Your task to perform on an android device: open chrome and create a bookmark for the current page Image 0: 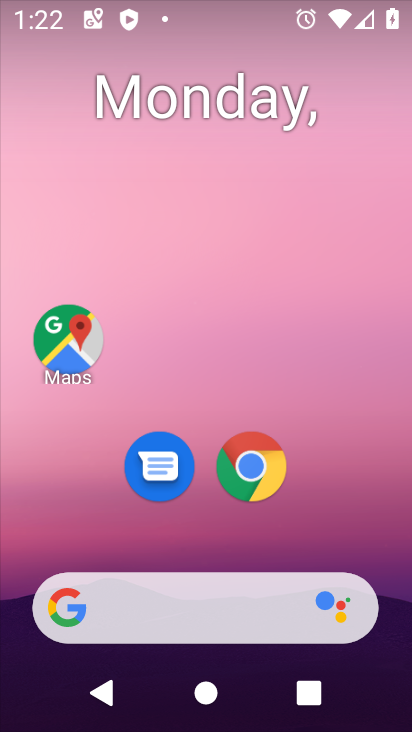
Step 0: drag from (391, 625) to (294, 144)
Your task to perform on an android device: open chrome and create a bookmark for the current page Image 1: 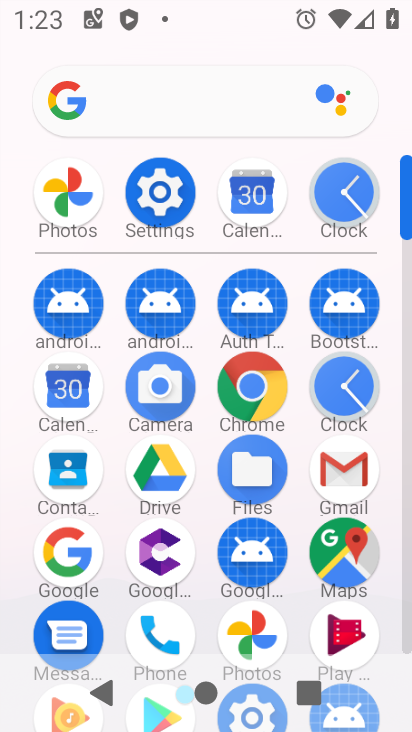
Step 1: click (239, 391)
Your task to perform on an android device: open chrome and create a bookmark for the current page Image 2: 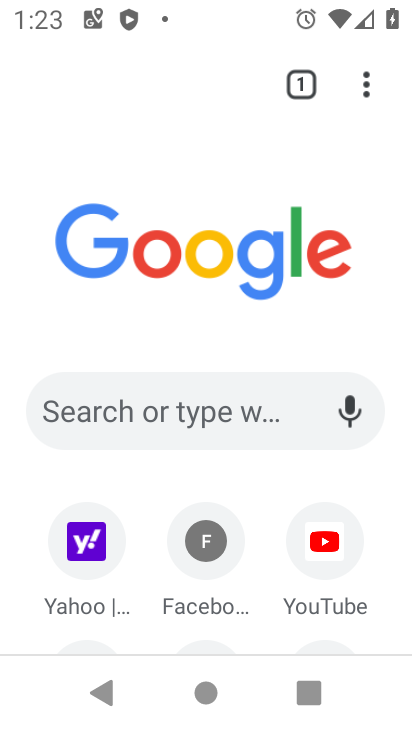
Step 2: click (368, 79)
Your task to perform on an android device: open chrome and create a bookmark for the current page Image 3: 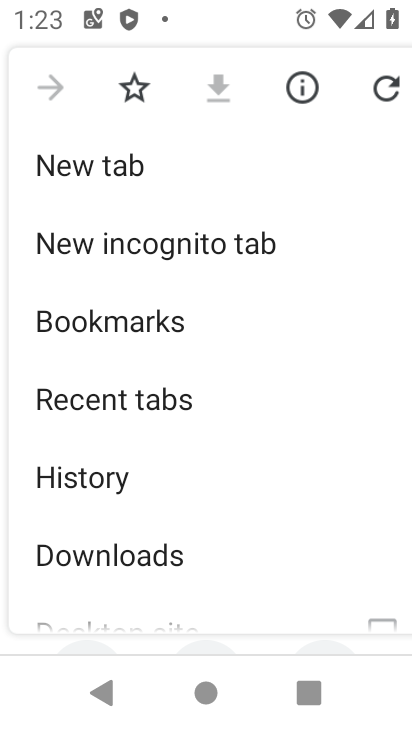
Step 3: click (133, 88)
Your task to perform on an android device: open chrome and create a bookmark for the current page Image 4: 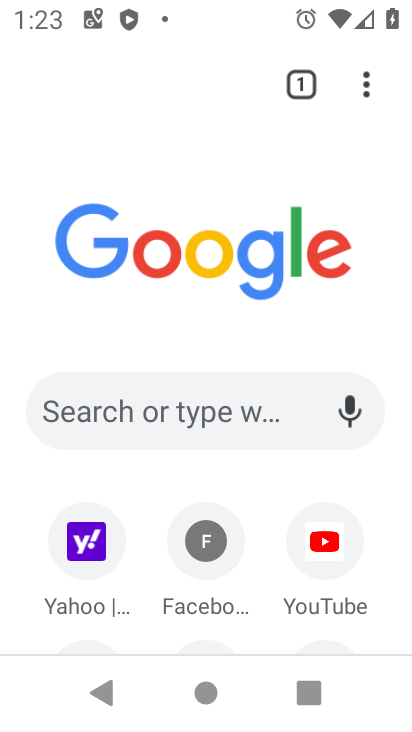
Step 4: task complete